Your task to perform on an android device: change the upload size in google photos Image 0: 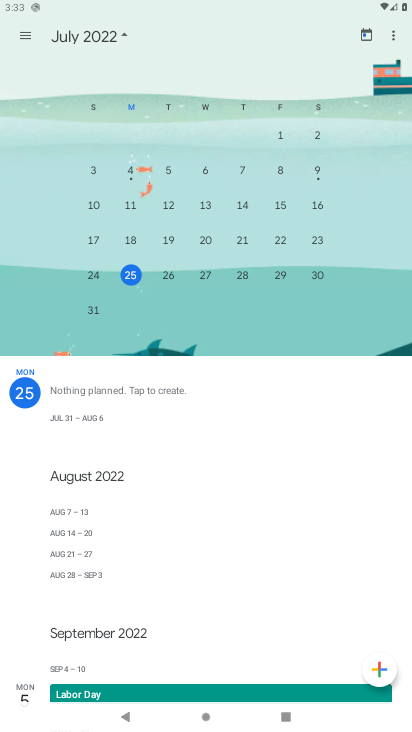
Step 0: press home button
Your task to perform on an android device: change the upload size in google photos Image 1: 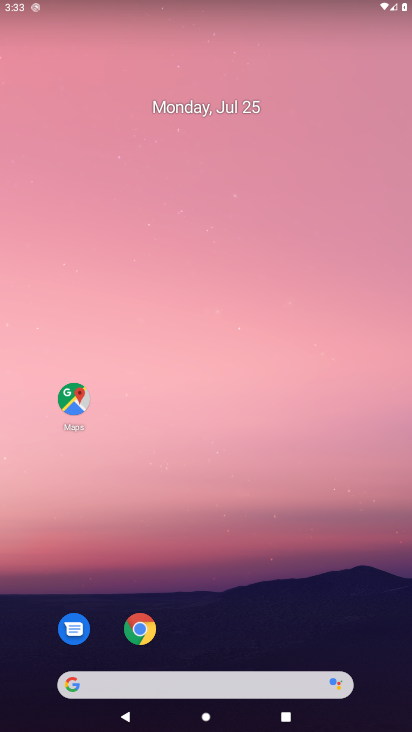
Step 1: drag from (1, 669) to (307, 43)
Your task to perform on an android device: change the upload size in google photos Image 2: 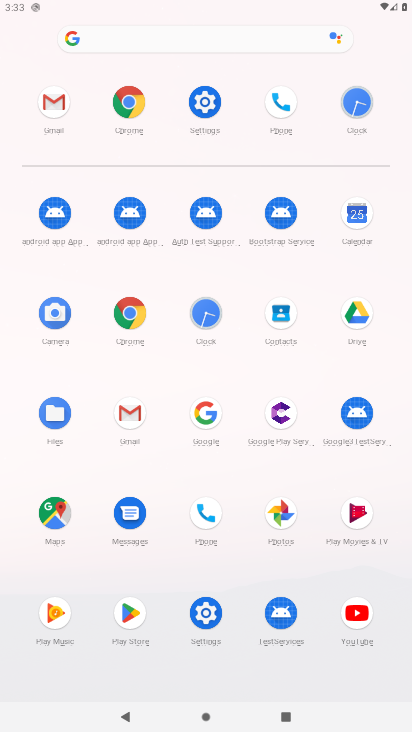
Step 2: click (292, 517)
Your task to perform on an android device: change the upload size in google photos Image 3: 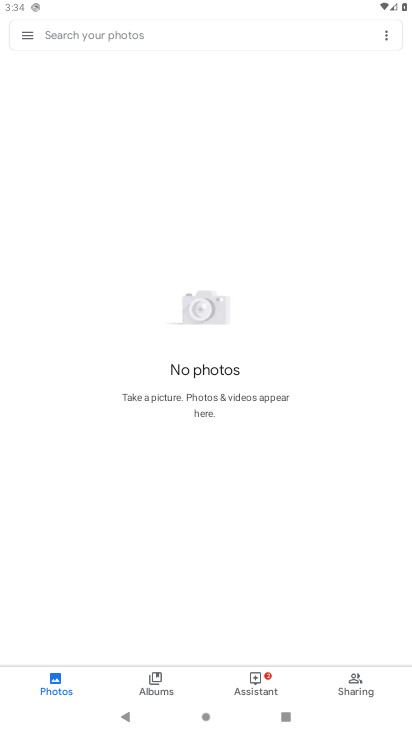
Step 3: click (22, 40)
Your task to perform on an android device: change the upload size in google photos Image 4: 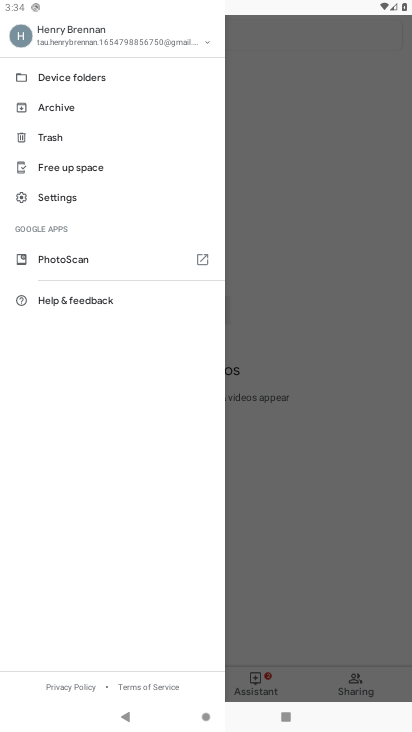
Step 4: click (67, 198)
Your task to perform on an android device: change the upload size in google photos Image 5: 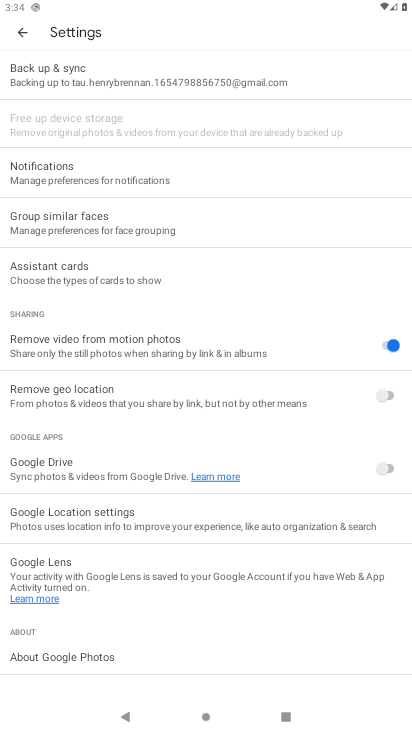
Step 5: click (76, 77)
Your task to perform on an android device: change the upload size in google photos Image 6: 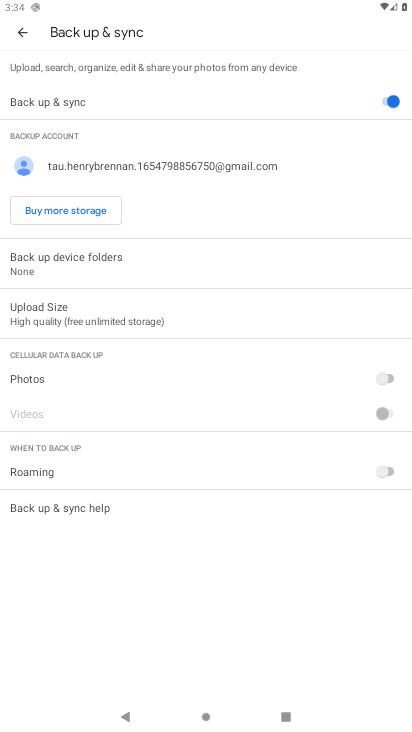
Step 6: click (71, 304)
Your task to perform on an android device: change the upload size in google photos Image 7: 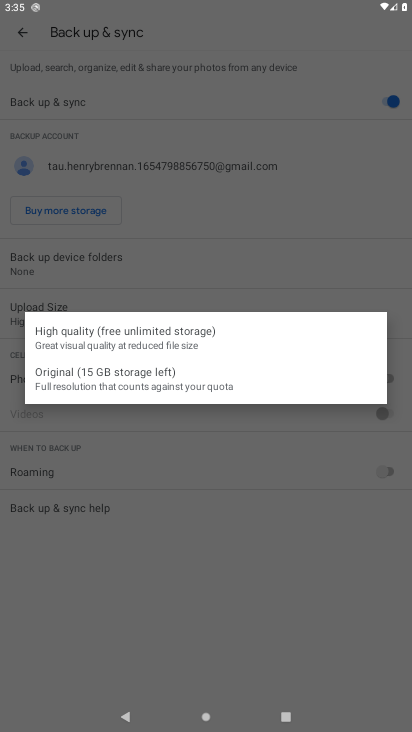
Step 7: click (88, 384)
Your task to perform on an android device: change the upload size in google photos Image 8: 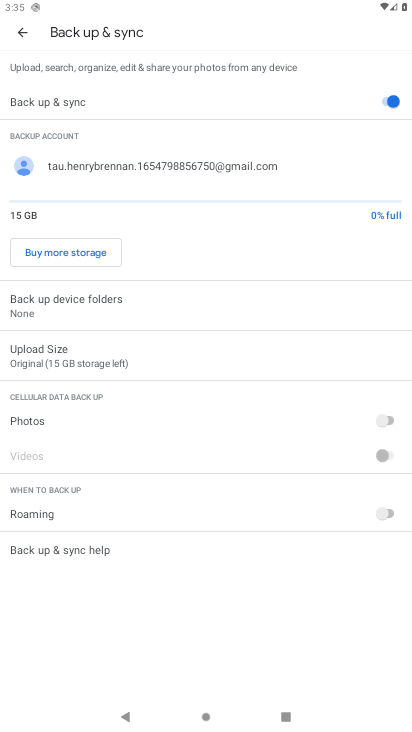
Step 8: task complete